Your task to perform on an android device: change the clock display to show seconds Image 0: 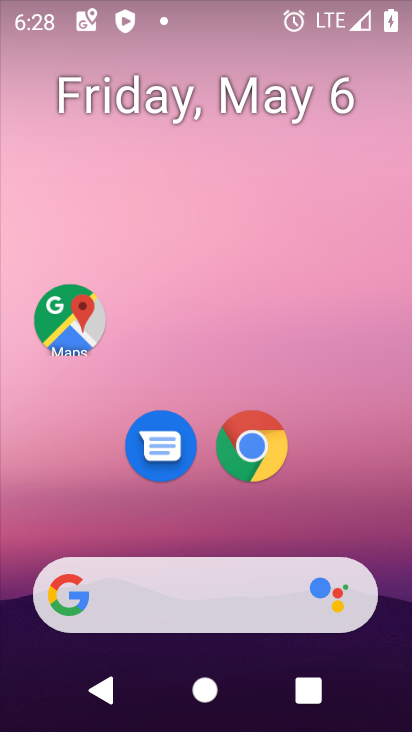
Step 0: drag from (330, 530) to (297, 159)
Your task to perform on an android device: change the clock display to show seconds Image 1: 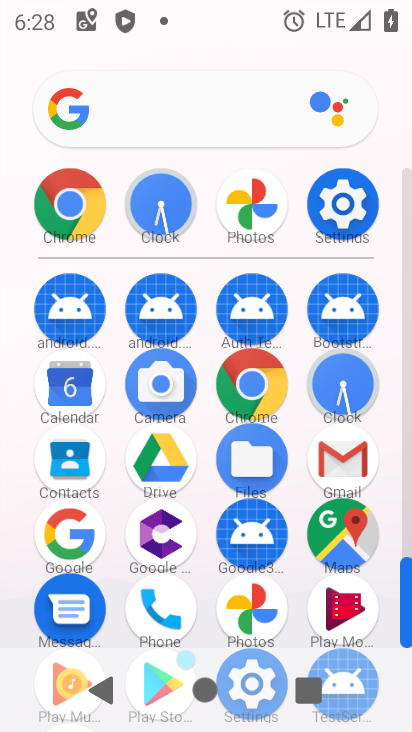
Step 1: click (345, 210)
Your task to perform on an android device: change the clock display to show seconds Image 2: 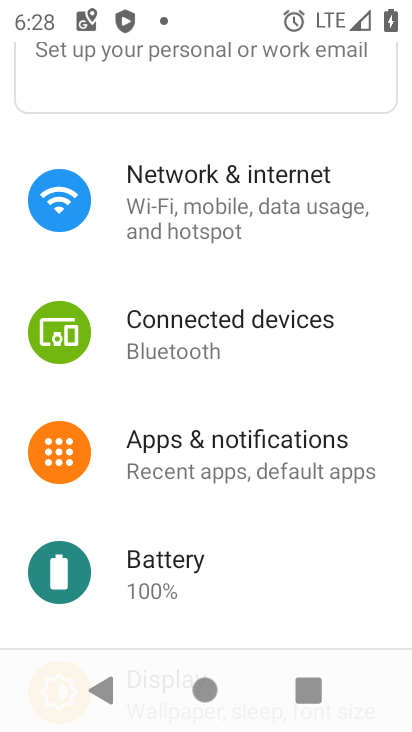
Step 2: drag from (264, 211) to (273, 634)
Your task to perform on an android device: change the clock display to show seconds Image 3: 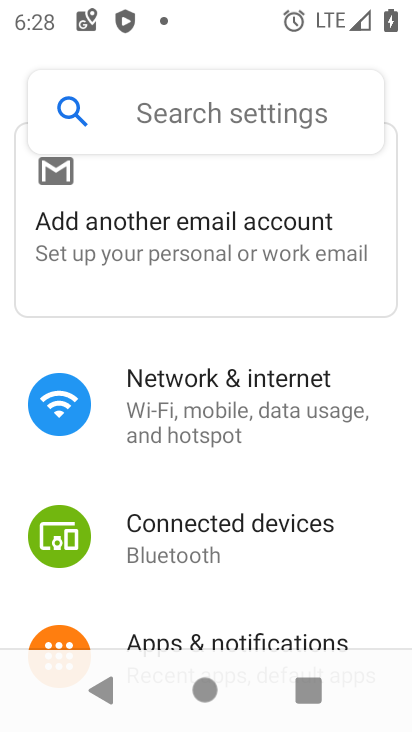
Step 3: click (168, 397)
Your task to perform on an android device: change the clock display to show seconds Image 4: 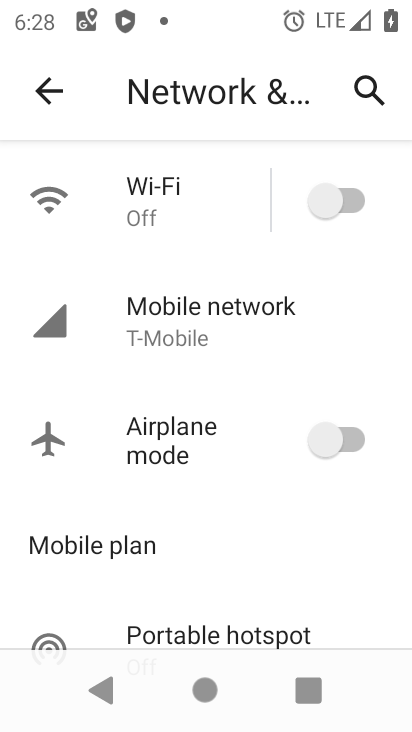
Step 4: click (178, 220)
Your task to perform on an android device: change the clock display to show seconds Image 5: 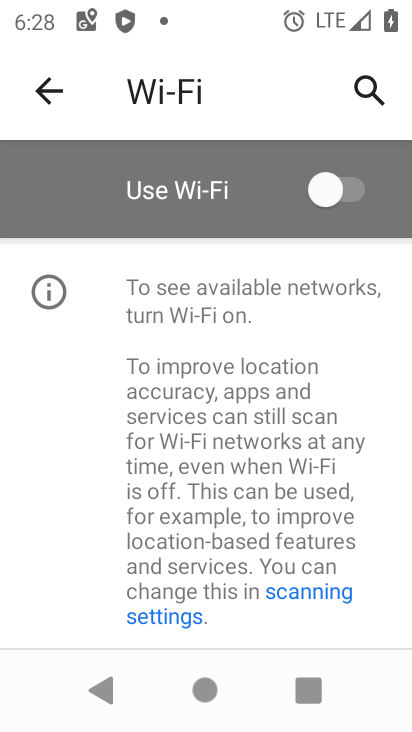
Step 5: task complete